Your task to perform on an android device: toggle airplane mode Image 0: 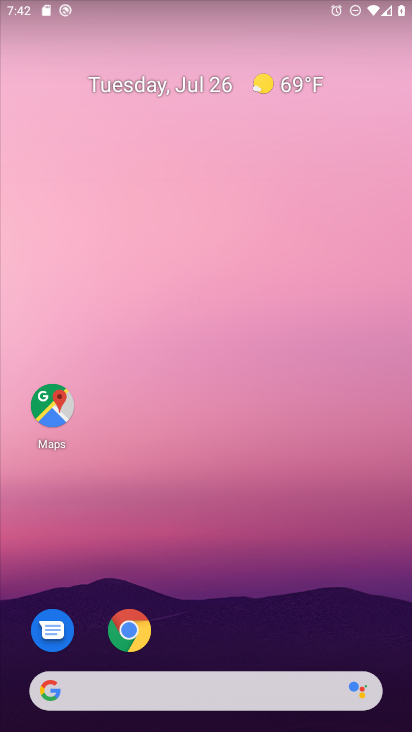
Step 0: drag from (240, 624) to (273, 186)
Your task to perform on an android device: toggle airplane mode Image 1: 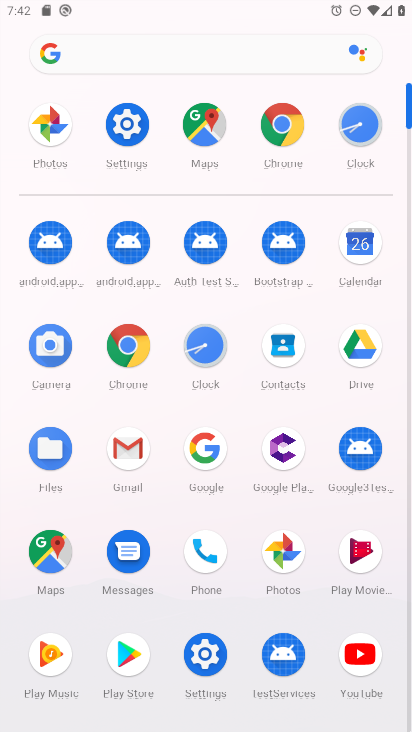
Step 1: click (219, 660)
Your task to perform on an android device: toggle airplane mode Image 2: 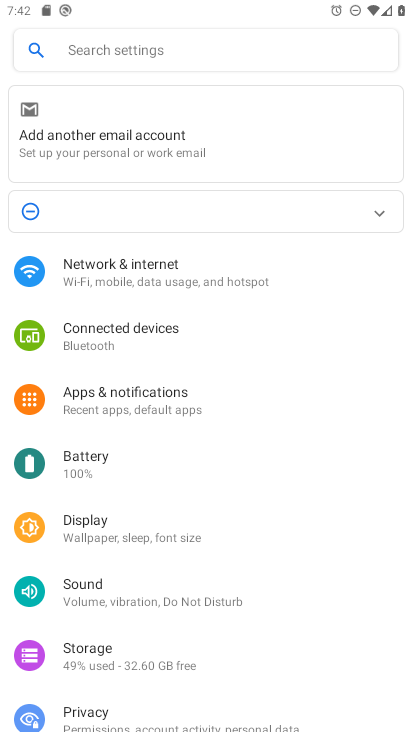
Step 2: click (242, 273)
Your task to perform on an android device: toggle airplane mode Image 3: 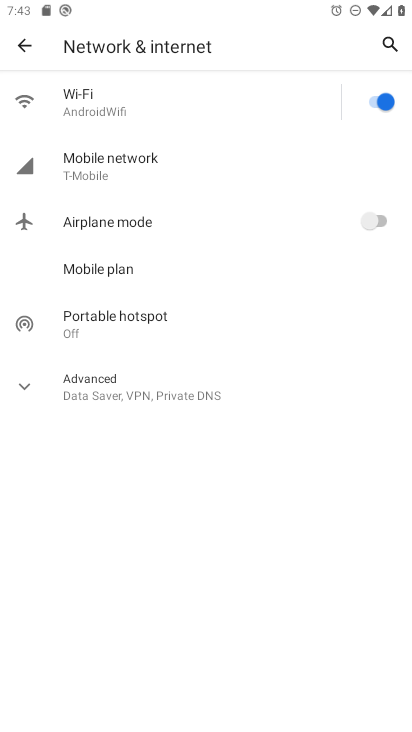
Step 3: click (253, 127)
Your task to perform on an android device: toggle airplane mode Image 4: 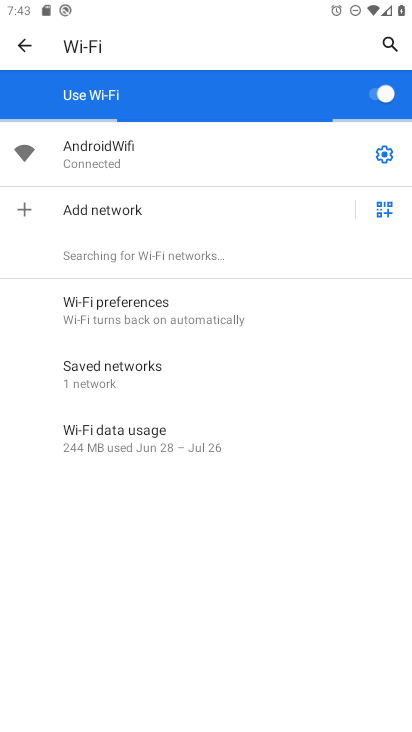
Step 4: press back button
Your task to perform on an android device: toggle airplane mode Image 5: 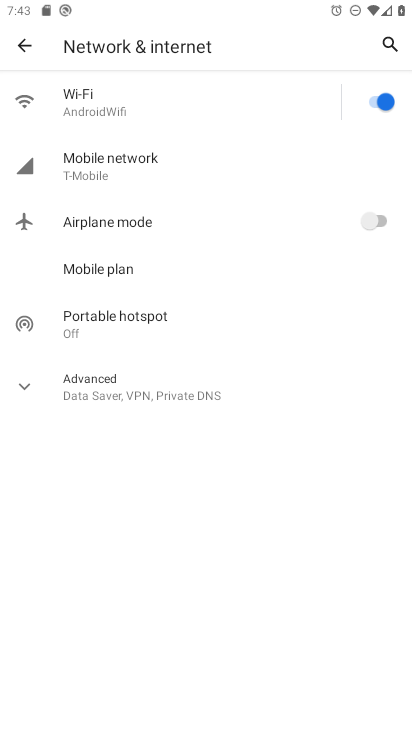
Step 5: click (382, 230)
Your task to perform on an android device: toggle airplane mode Image 6: 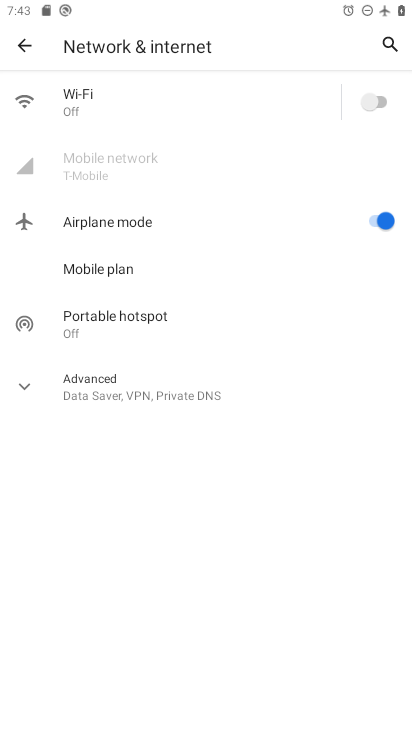
Step 6: task complete